Your task to perform on an android device: Open Amazon Image 0: 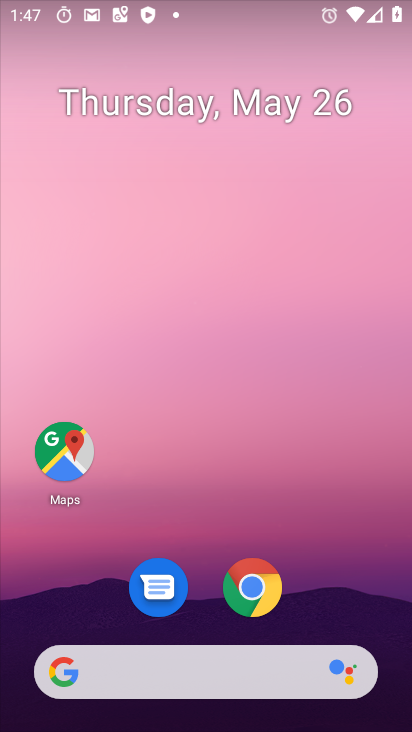
Step 0: drag from (217, 715) to (180, 63)
Your task to perform on an android device: Open Amazon Image 1: 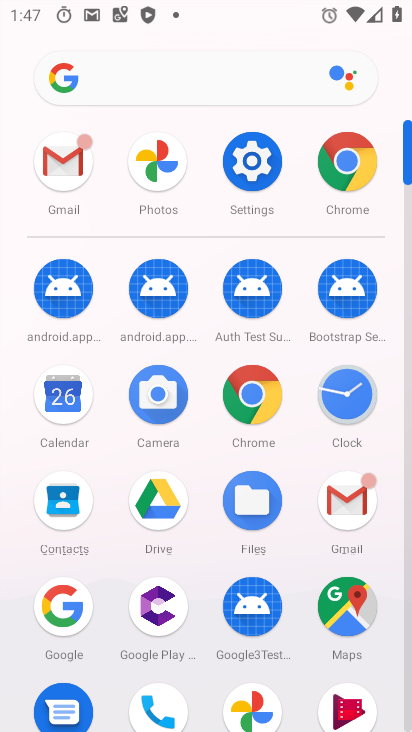
Step 1: click (335, 163)
Your task to perform on an android device: Open Amazon Image 2: 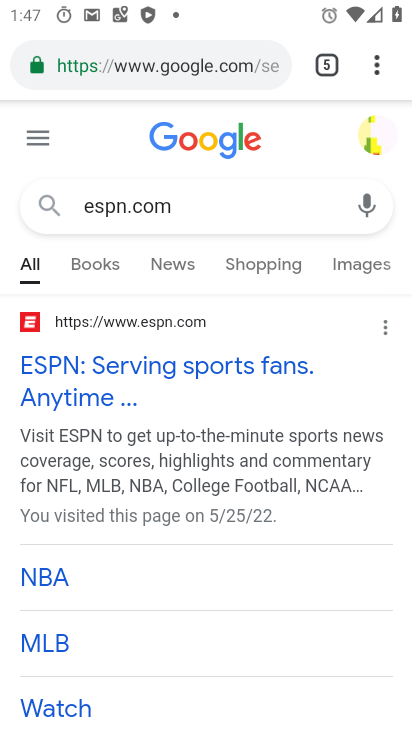
Step 2: click (329, 65)
Your task to perform on an android device: Open Amazon Image 3: 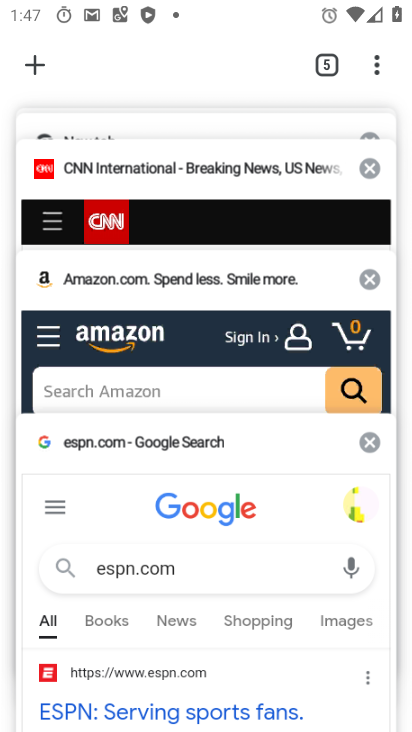
Step 3: click (32, 64)
Your task to perform on an android device: Open Amazon Image 4: 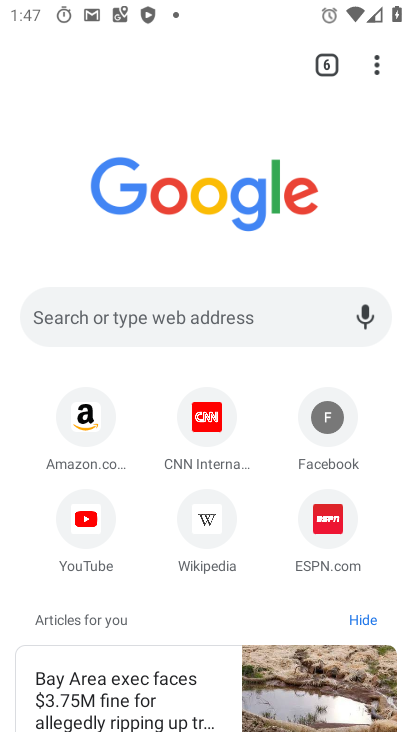
Step 4: click (93, 408)
Your task to perform on an android device: Open Amazon Image 5: 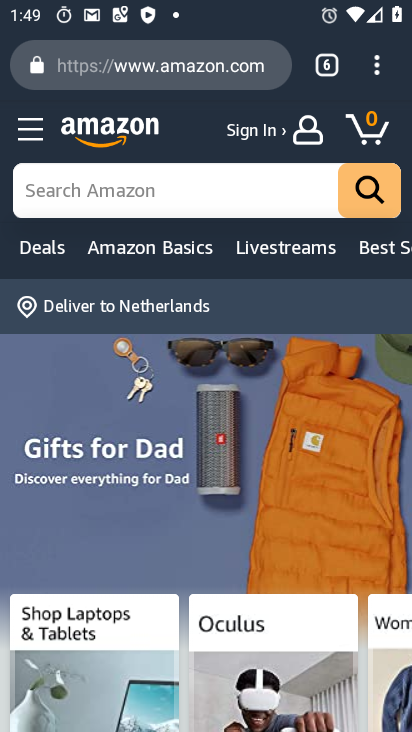
Step 5: task complete